Your task to perform on an android device: toggle show notifications on the lock screen Image 0: 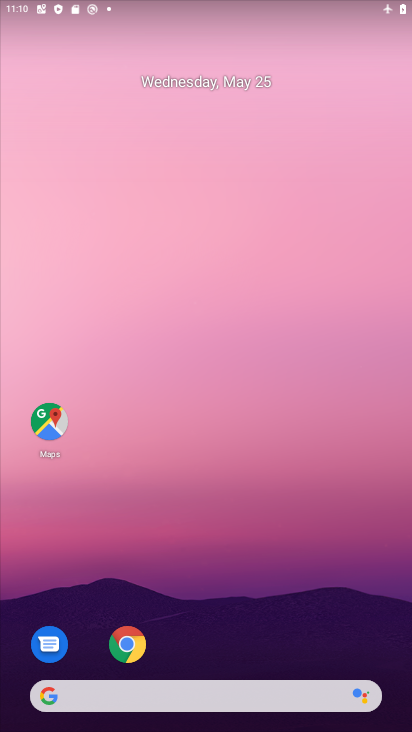
Step 0: drag from (220, 634) to (275, 115)
Your task to perform on an android device: toggle show notifications on the lock screen Image 1: 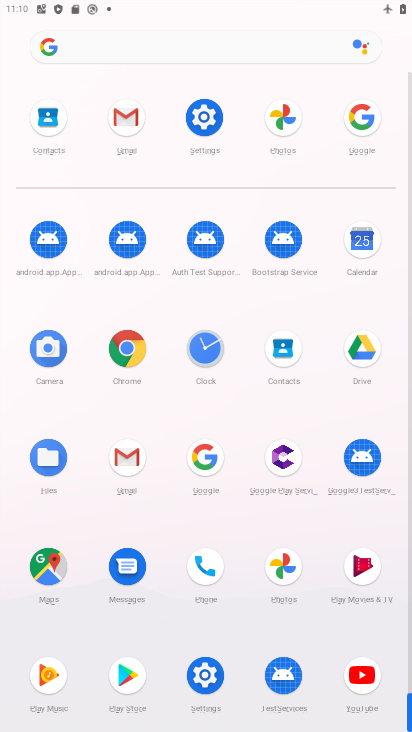
Step 1: click (200, 119)
Your task to perform on an android device: toggle show notifications on the lock screen Image 2: 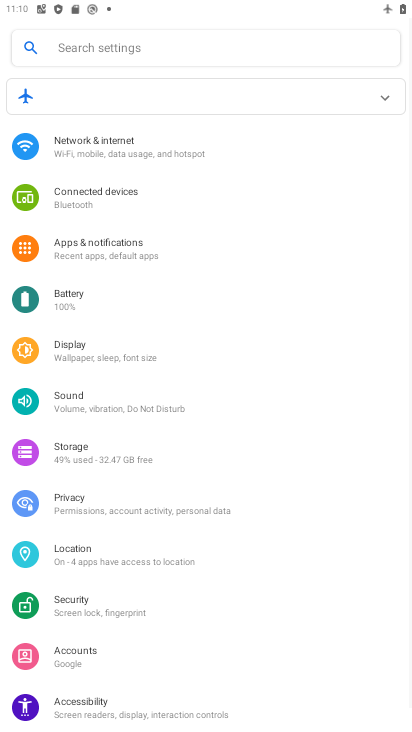
Step 2: click (120, 233)
Your task to perform on an android device: toggle show notifications on the lock screen Image 3: 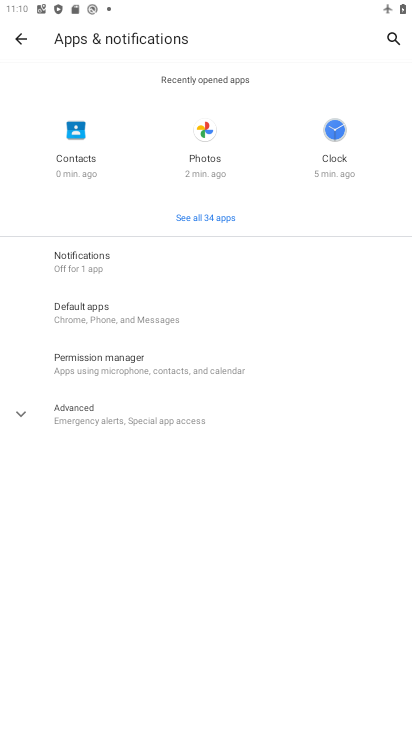
Step 3: click (131, 251)
Your task to perform on an android device: toggle show notifications on the lock screen Image 4: 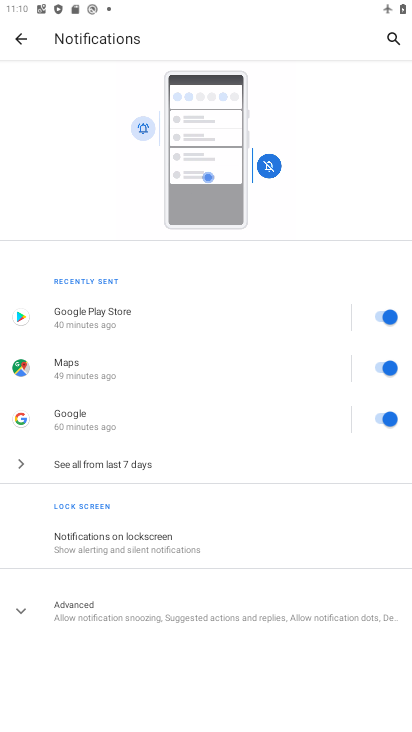
Step 4: click (136, 538)
Your task to perform on an android device: toggle show notifications on the lock screen Image 5: 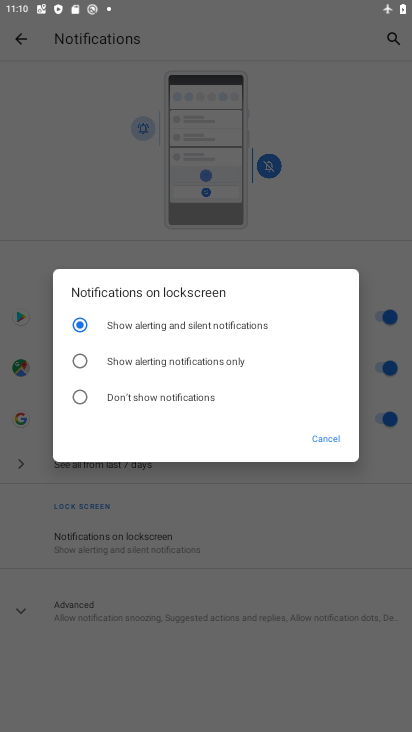
Step 5: click (120, 397)
Your task to perform on an android device: toggle show notifications on the lock screen Image 6: 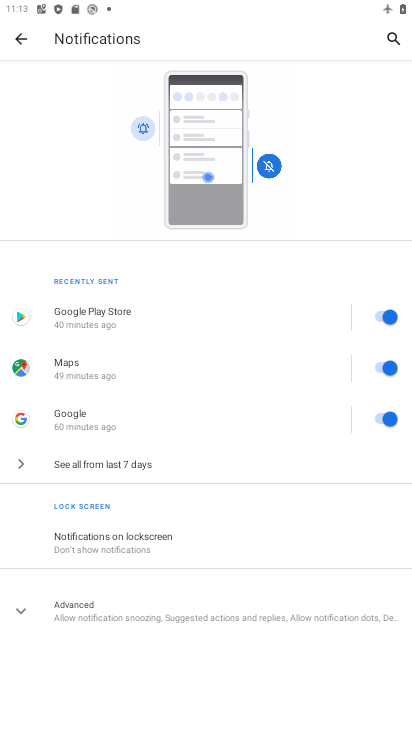
Step 6: task complete